Your task to perform on an android device: Show the shopping cart on costco.com. Search for "logitech g pro" on costco.com, select the first entry, add it to the cart, then select checkout. Image 0: 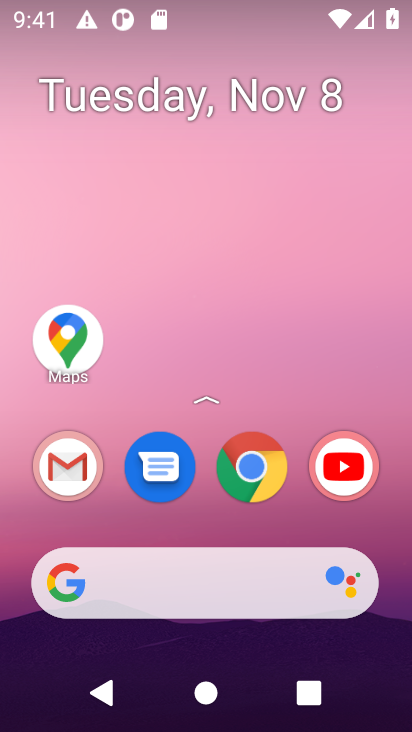
Step 0: click (244, 586)
Your task to perform on an android device: Show the shopping cart on costco.com. Search for "logitech g pro" on costco.com, select the first entry, add it to the cart, then select checkout. Image 1: 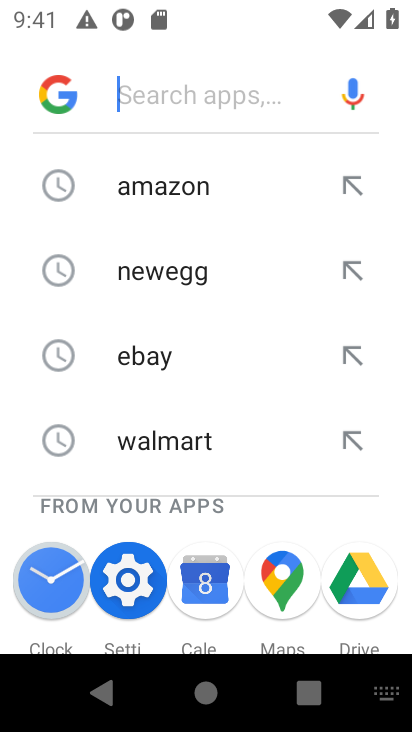
Step 1: type "costco"
Your task to perform on an android device: Show the shopping cart on costco.com. Search for "logitech g pro" on costco.com, select the first entry, add it to the cart, then select checkout. Image 2: 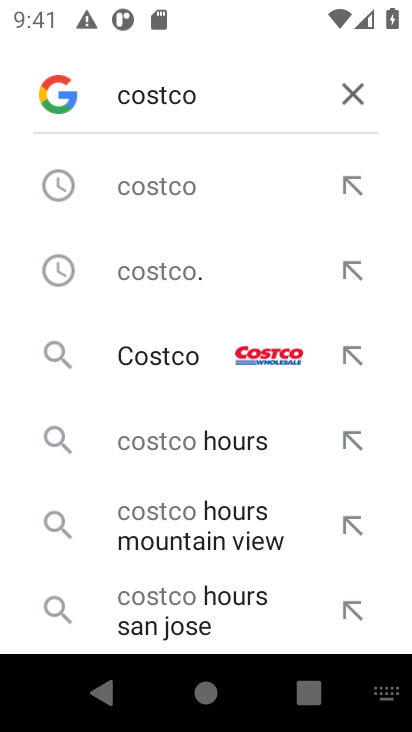
Step 2: click (145, 182)
Your task to perform on an android device: Show the shopping cart on costco.com. Search for "logitech g pro" on costco.com, select the first entry, add it to the cart, then select checkout. Image 3: 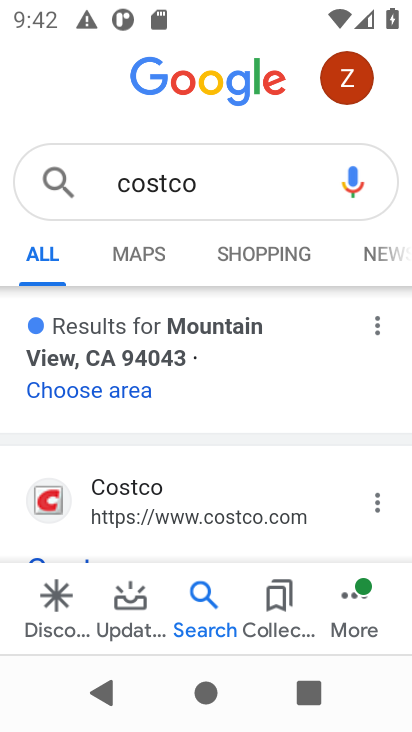
Step 3: click (99, 530)
Your task to perform on an android device: Show the shopping cart on costco.com. Search for "logitech g pro" on costco.com, select the first entry, add it to the cart, then select checkout. Image 4: 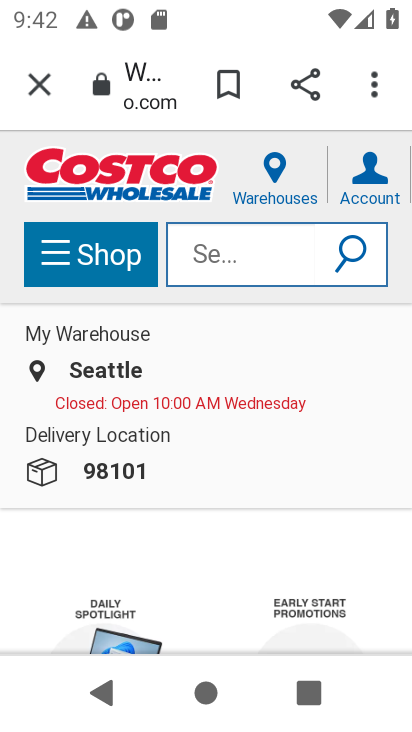
Step 4: click (265, 263)
Your task to perform on an android device: Show the shopping cart on costco.com. Search for "logitech g pro" on costco.com, select the first entry, add it to the cart, then select checkout. Image 5: 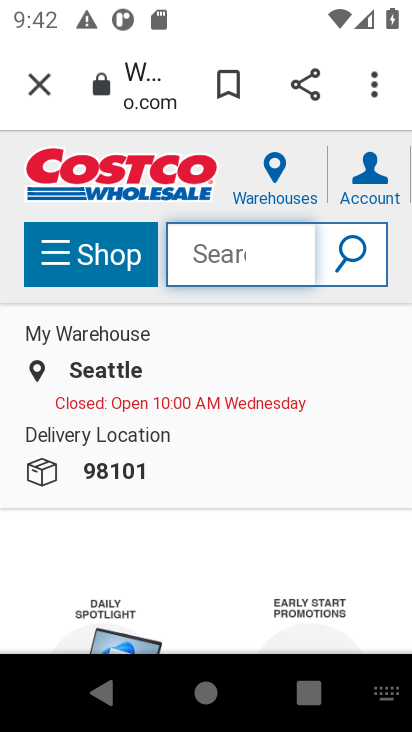
Step 5: type "logitech g pro"
Your task to perform on an android device: Show the shopping cart on costco.com. Search for "logitech g pro" on costco.com, select the first entry, add it to the cart, then select checkout. Image 6: 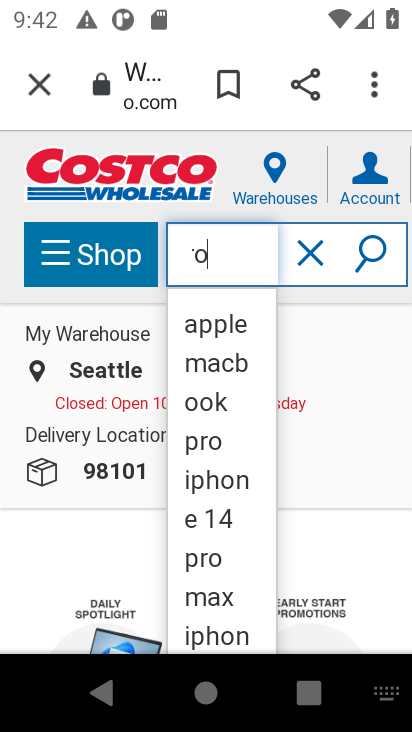
Step 6: click (211, 342)
Your task to perform on an android device: Show the shopping cart on costco.com. Search for "logitech g pro" on costco.com, select the first entry, add it to the cart, then select checkout. Image 7: 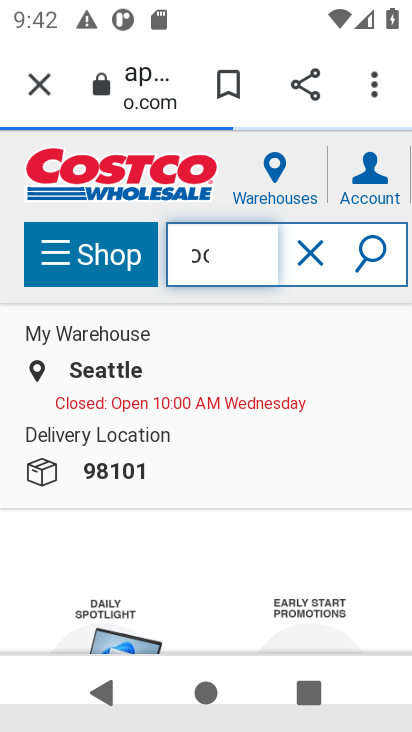
Step 7: task complete